Your task to perform on an android device: Search for Italian restaurants on Maps Image 0: 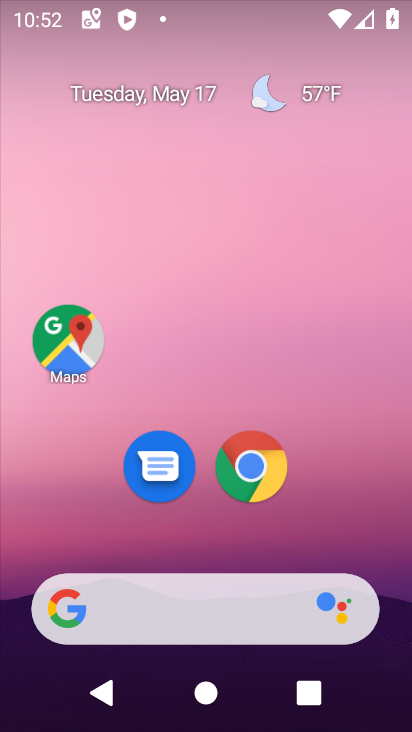
Step 0: drag from (209, 537) to (247, 5)
Your task to perform on an android device: Search for Italian restaurants on Maps Image 1: 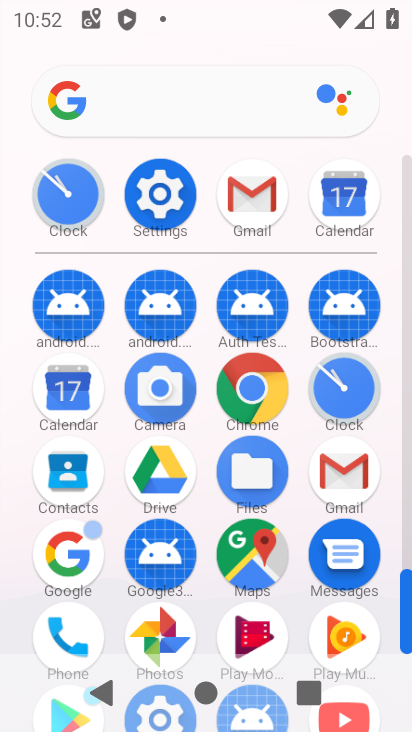
Step 1: click (251, 537)
Your task to perform on an android device: Search for Italian restaurants on Maps Image 2: 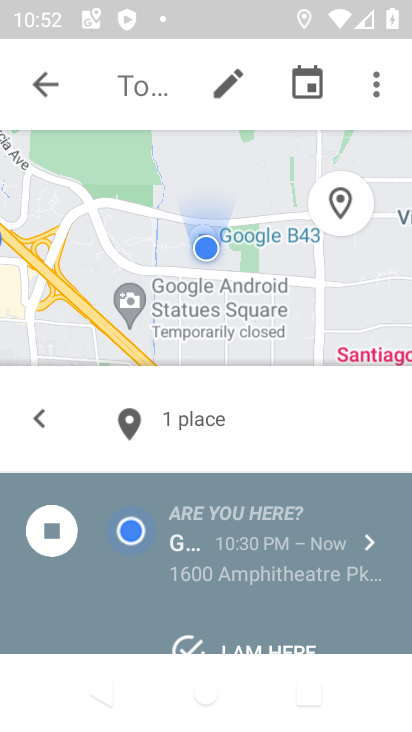
Step 2: click (41, 81)
Your task to perform on an android device: Search for Italian restaurants on Maps Image 3: 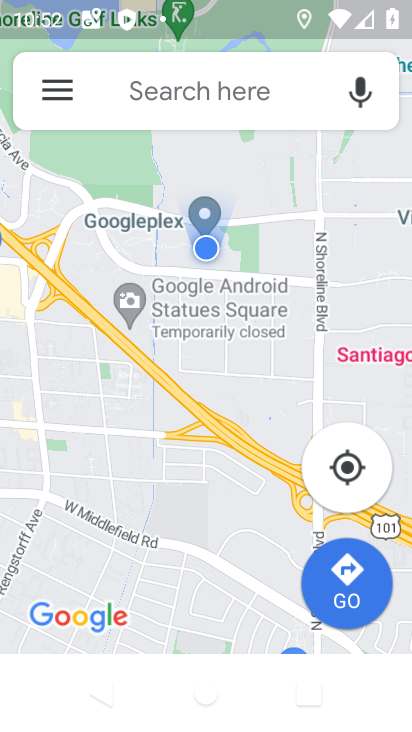
Step 3: click (169, 109)
Your task to perform on an android device: Search for Italian restaurants on Maps Image 4: 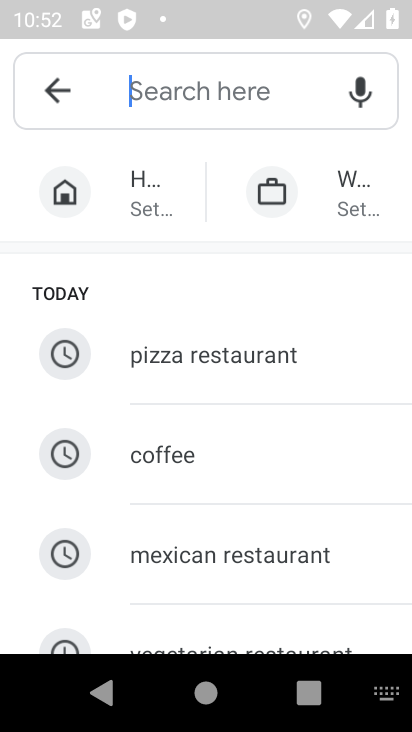
Step 4: drag from (218, 516) to (199, 210)
Your task to perform on an android device: Search for Italian restaurants on Maps Image 5: 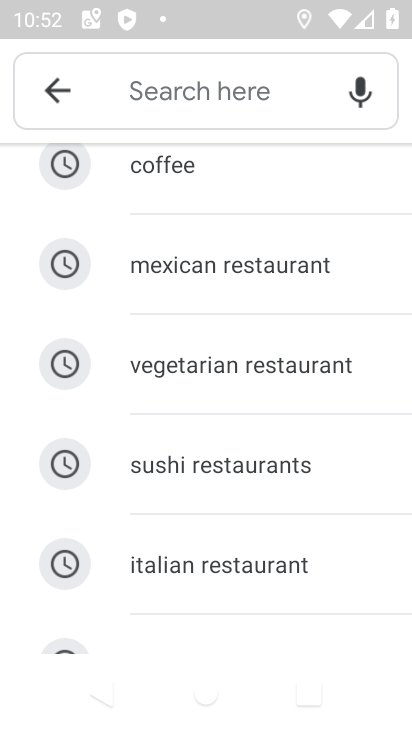
Step 5: click (170, 551)
Your task to perform on an android device: Search for Italian restaurants on Maps Image 6: 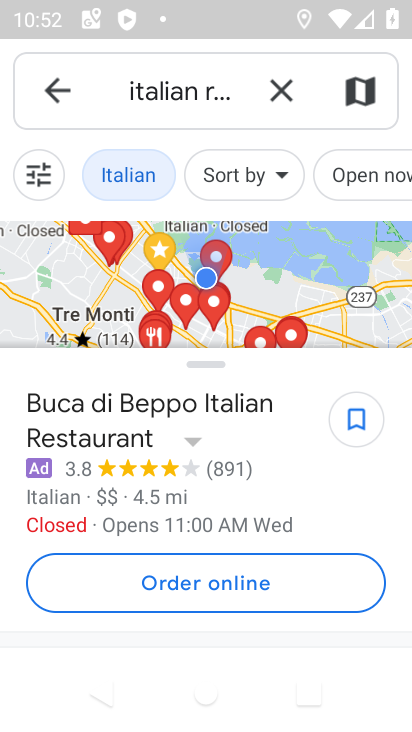
Step 6: task complete